Your task to perform on an android device: empty trash in the gmail app Image 0: 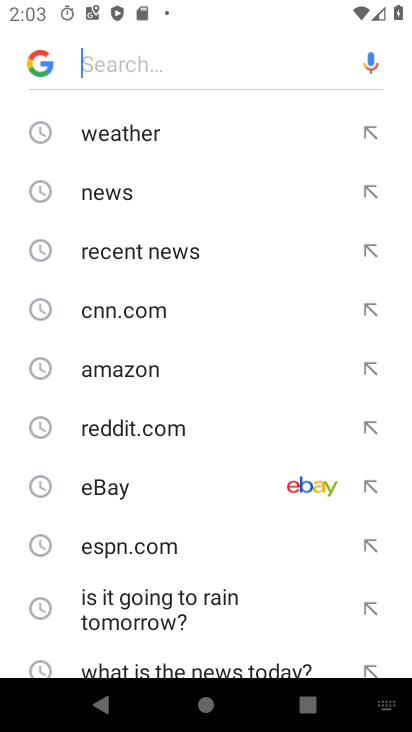
Step 0: press home button
Your task to perform on an android device: empty trash in the gmail app Image 1: 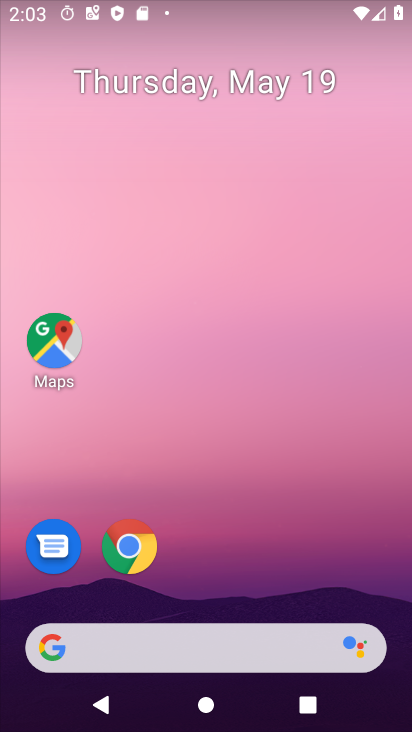
Step 1: drag from (172, 602) to (243, 29)
Your task to perform on an android device: empty trash in the gmail app Image 2: 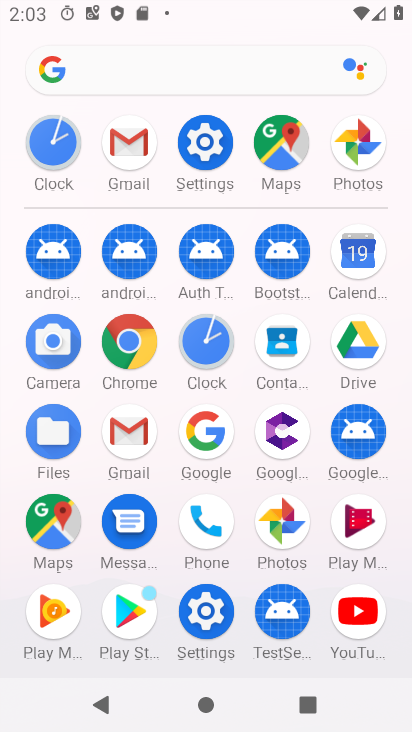
Step 2: click (143, 144)
Your task to perform on an android device: empty trash in the gmail app Image 3: 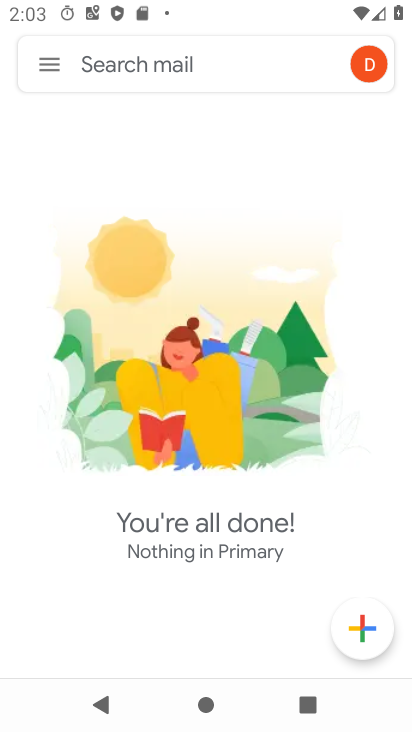
Step 3: click (53, 66)
Your task to perform on an android device: empty trash in the gmail app Image 4: 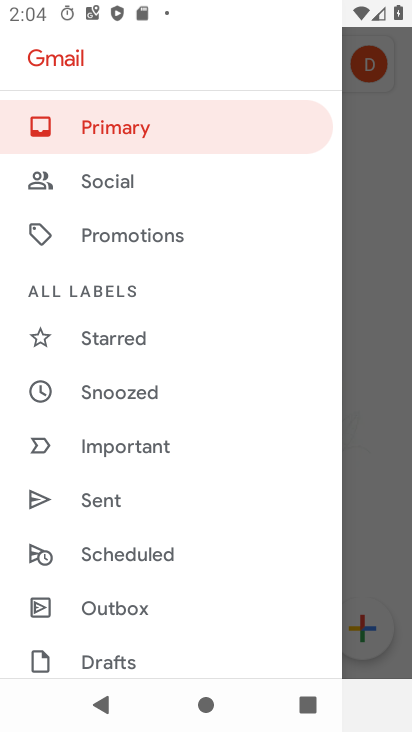
Step 4: drag from (134, 607) to (193, 16)
Your task to perform on an android device: empty trash in the gmail app Image 5: 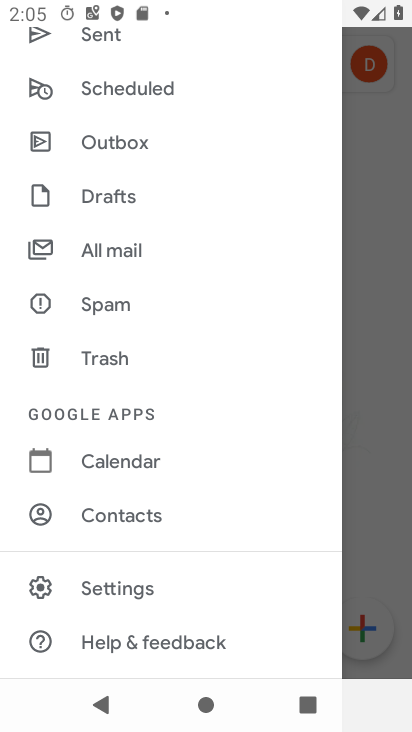
Step 5: click (106, 359)
Your task to perform on an android device: empty trash in the gmail app Image 6: 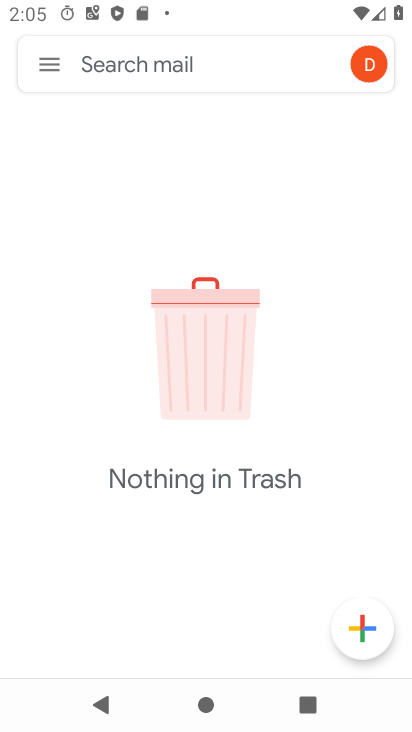
Step 6: task complete